Your task to perform on an android device: turn smart compose on in the gmail app Image 0: 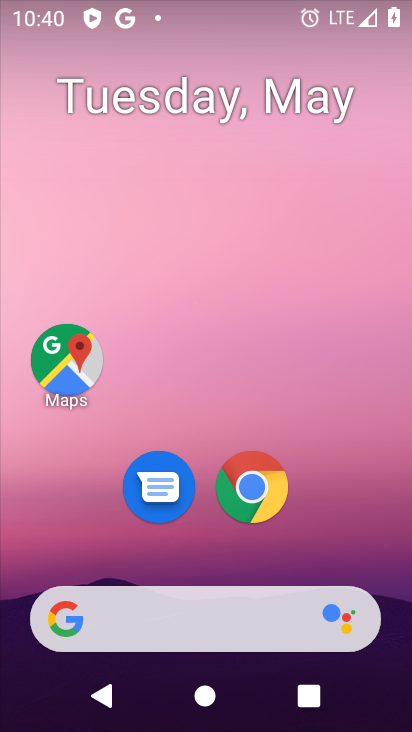
Step 0: drag from (202, 541) to (289, 43)
Your task to perform on an android device: turn smart compose on in the gmail app Image 1: 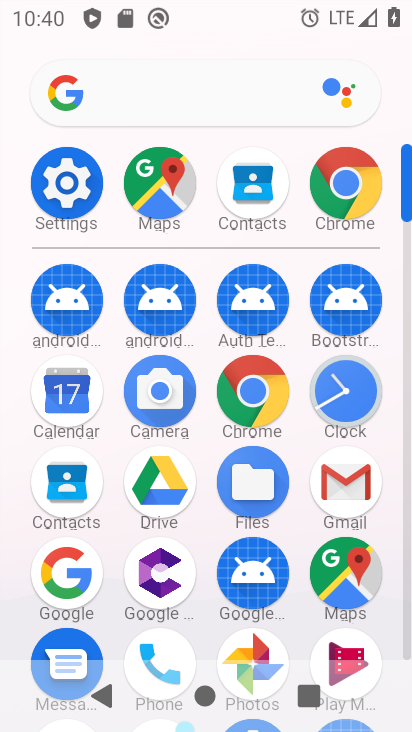
Step 1: click (359, 469)
Your task to perform on an android device: turn smart compose on in the gmail app Image 2: 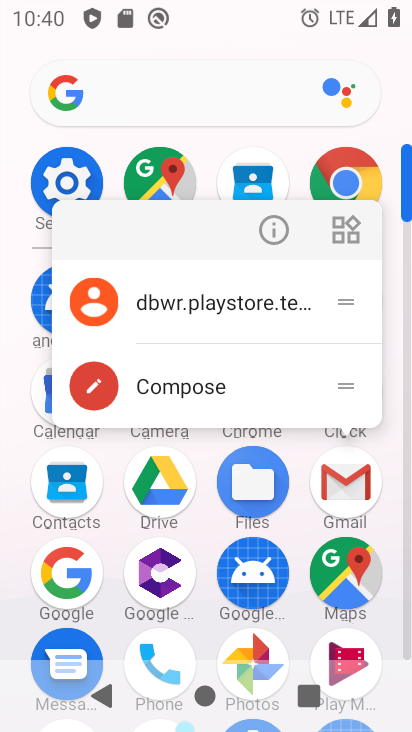
Step 2: click (178, 325)
Your task to perform on an android device: turn smart compose on in the gmail app Image 3: 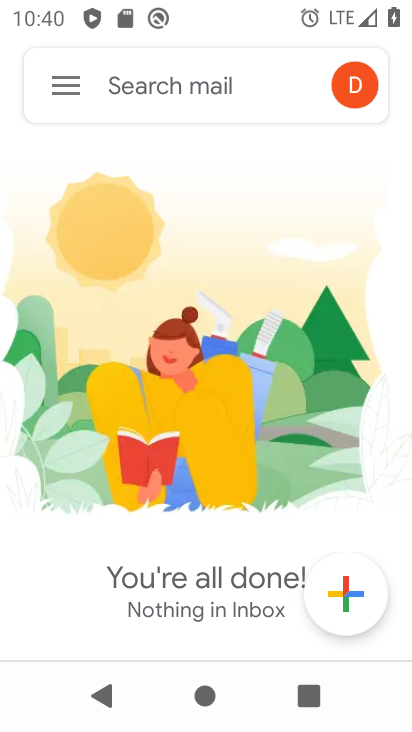
Step 3: drag from (243, 546) to (272, 131)
Your task to perform on an android device: turn smart compose on in the gmail app Image 4: 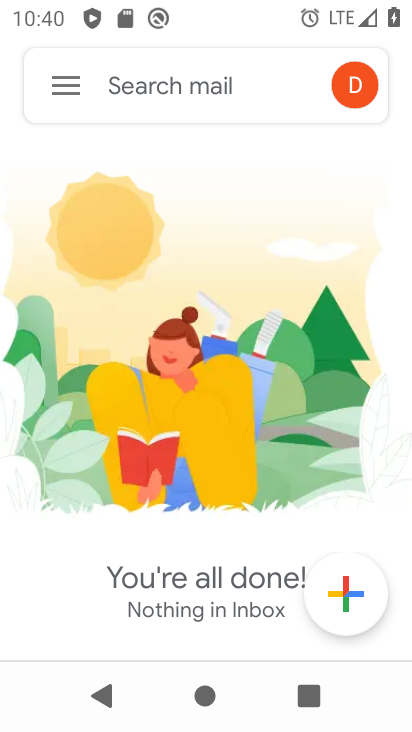
Step 4: click (55, 72)
Your task to perform on an android device: turn smart compose on in the gmail app Image 5: 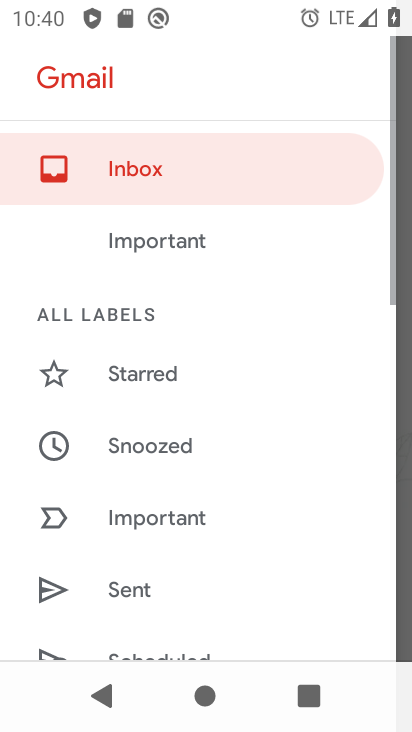
Step 5: drag from (141, 492) to (208, 74)
Your task to perform on an android device: turn smart compose on in the gmail app Image 6: 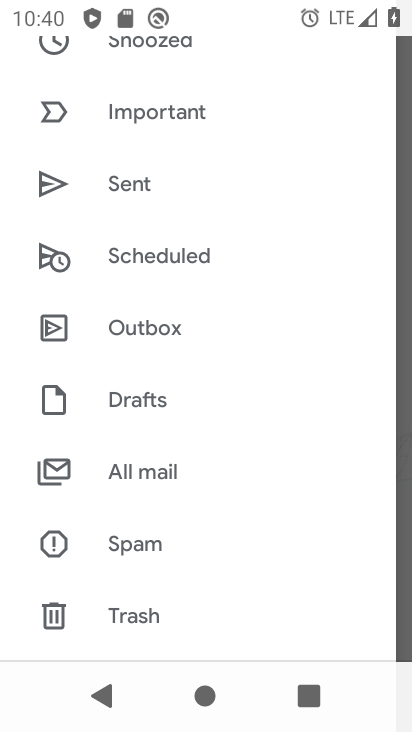
Step 6: drag from (169, 594) to (256, 208)
Your task to perform on an android device: turn smart compose on in the gmail app Image 7: 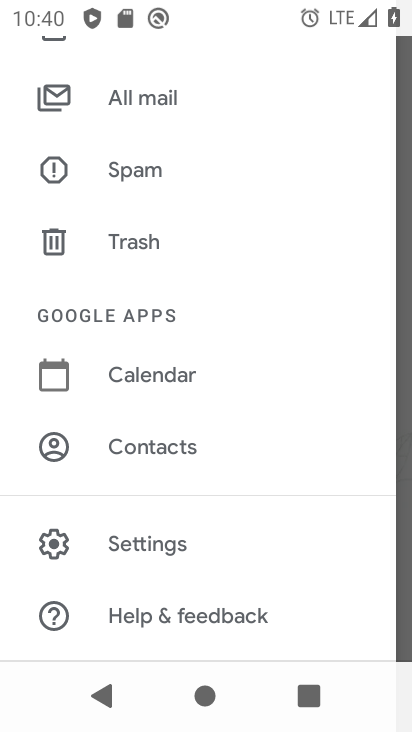
Step 7: click (133, 550)
Your task to perform on an android device: turn smart compose on in the gmail app Image 8: 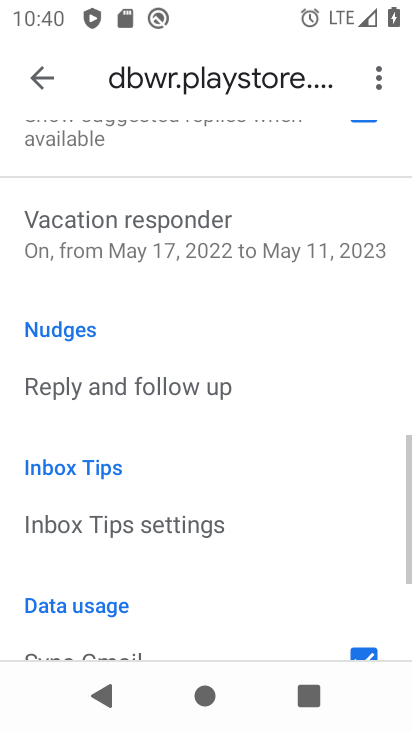
Step 8: task complete